Your task to perform on an android device: Open Wikipedia Image 0: 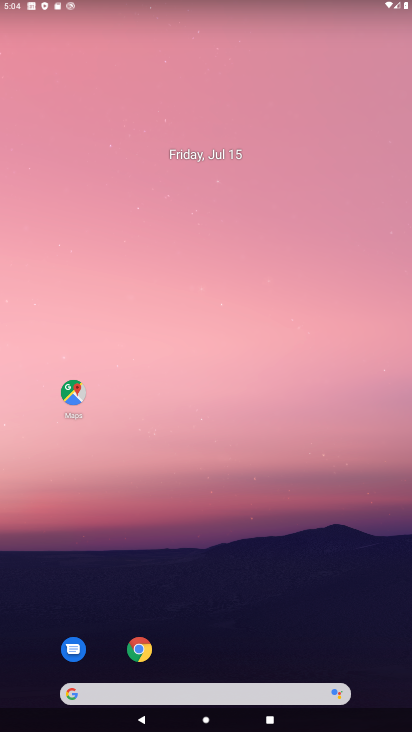
Step 0: click (140, 649)
Your task to perform on an android device: Open Wikipedia Image 1: 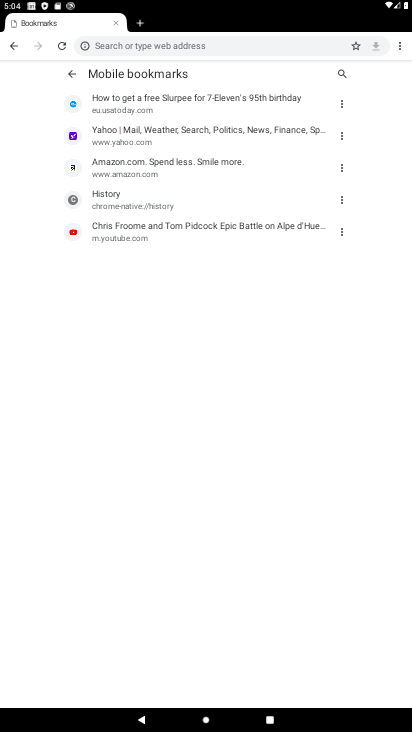
Step 1: click (221, 49)
Your task to perform on an android device: Open Wikipedia Image 2: 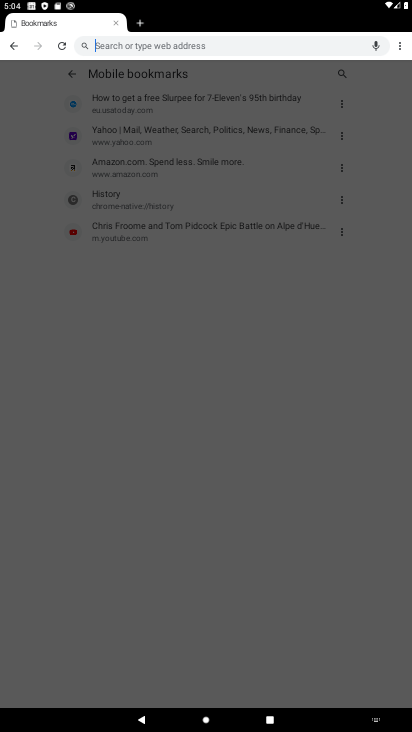
Step 2: type "Wikipedia"
Your task to perform on an android device: Open Wikipedia Image 3: 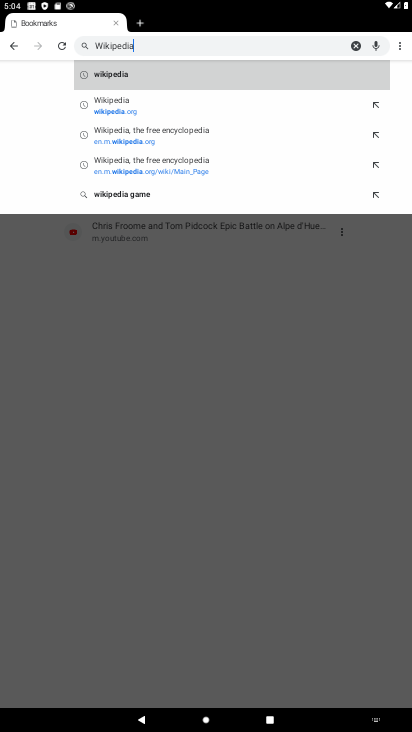
Step 3: click (120, 105)
Your task to perform on an android device: Open Wikipedia Image 4: 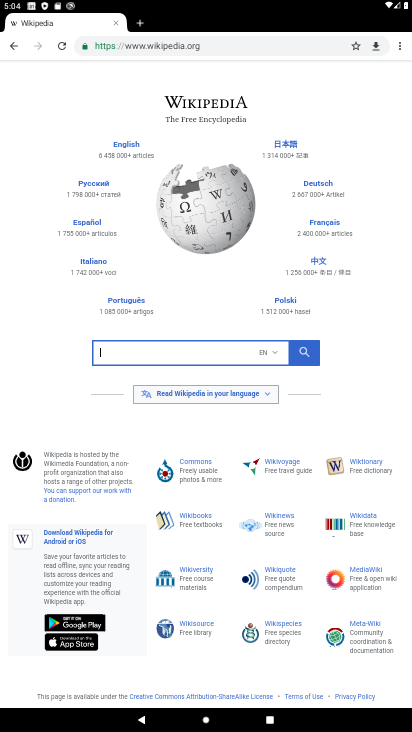
Step 4: task complete